Your task to perform on an android device: open device folders in google photos Image 0: 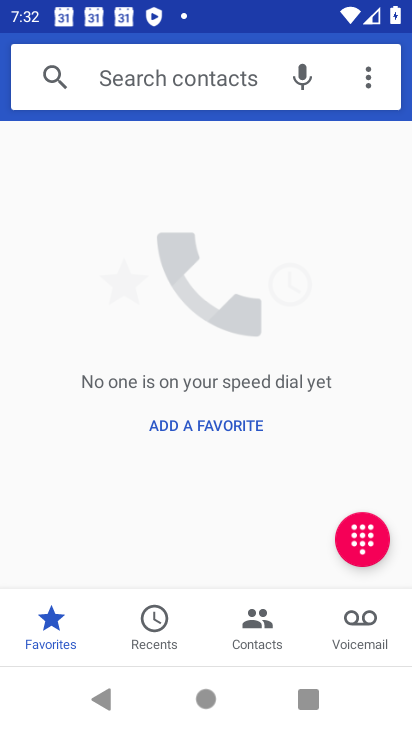
Step 0: press home button
Your task to perform on an android device: open device folders in google photos Image 1: 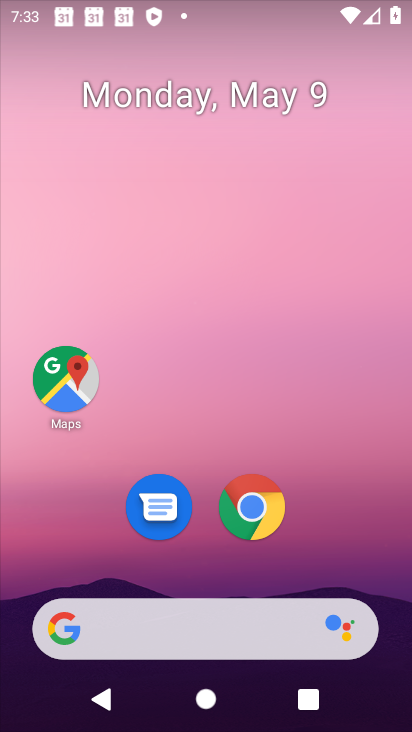
Step 1: drag from (249, 680) to (305, 186)
Your task to perform on an android device: open device folders in google photos Image 2: 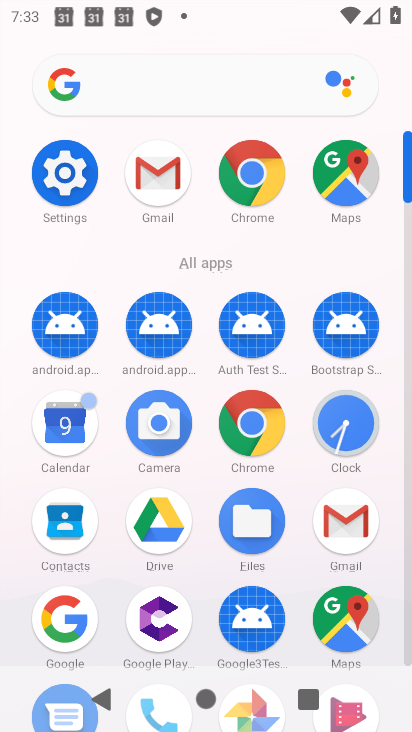
Step 2: drag from (197, 577) to (221, 411)
Your task to perform on an android device: open device folders in google photos Image 3: 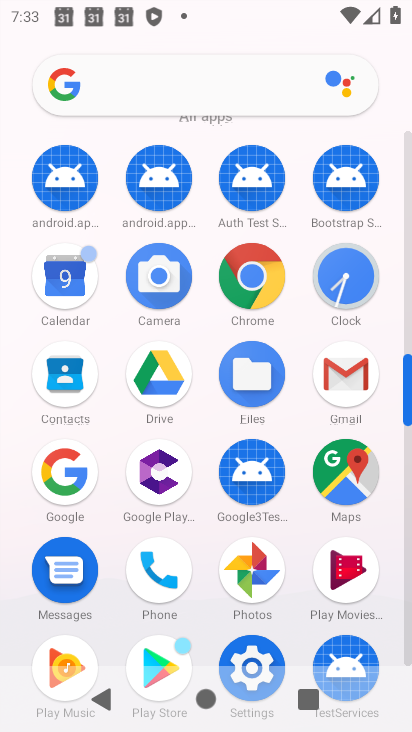
Step 3: click (238, 563)
Your task to perform on an android device: open device folders in google photos Image 4: 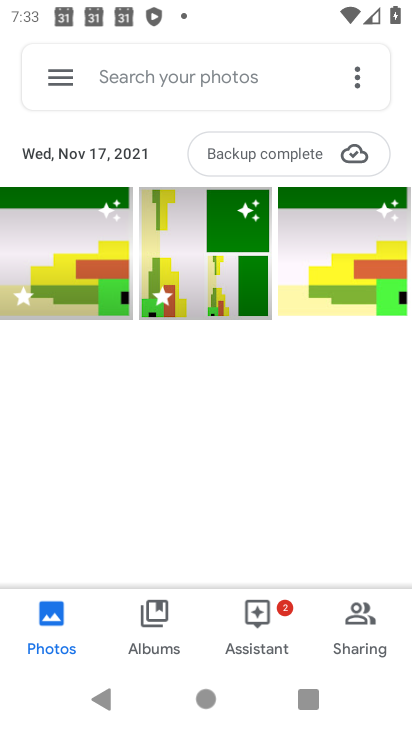
Step 4: click (66, 79)
Your task to perform on an android device: open device folders in google photos Image 5: 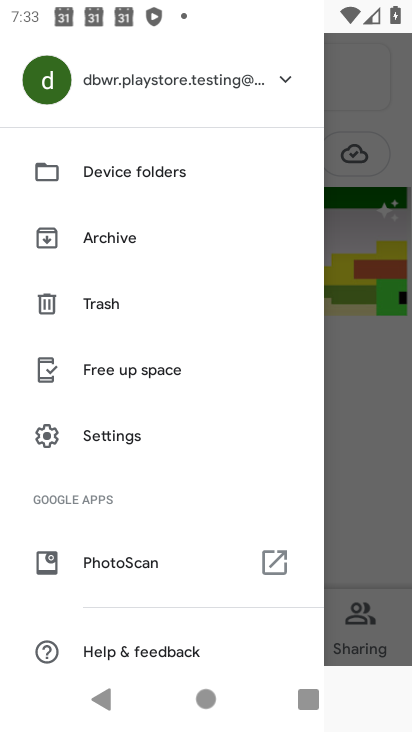
Step 5: click (132, 180)
Your task to perform on an android device: open device folders in google photos Image 6: 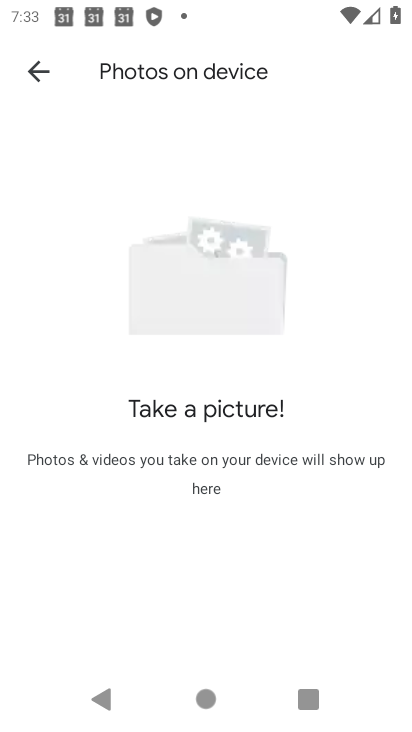
Step 6: task complete